Your task to perform on an android device: check storage Image 0: 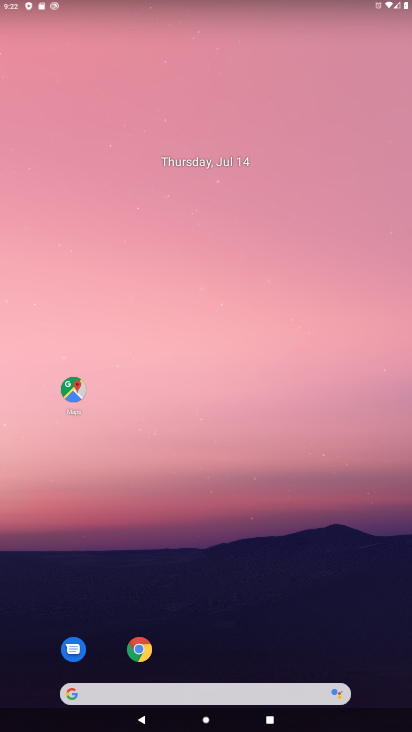
Step 0: drag from (113, 514) to (411, 249)
Your task to perform on an android device: check storage Image 1: 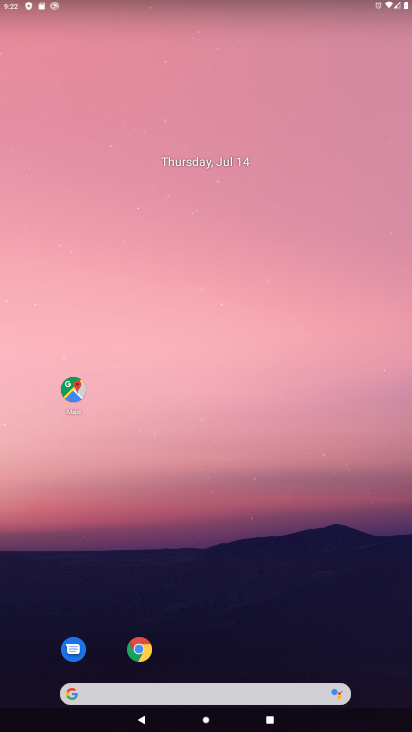
Step 1: drag from (236, 726) to (401, 20)
Your task to perform on an android device: check storage Image 2: 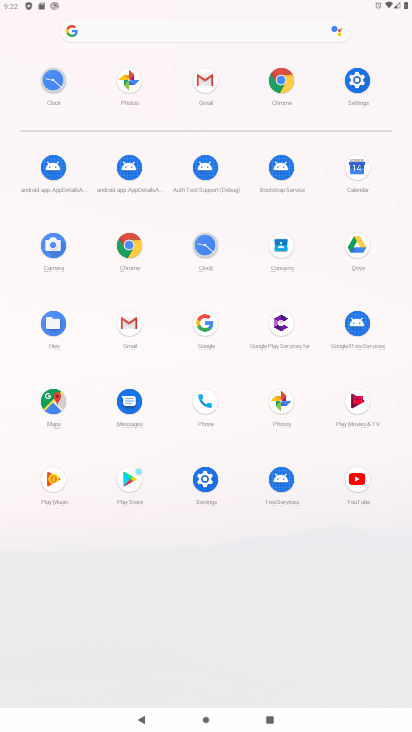
Step 2: click (360, 79)
Your task to perform on an android device: check storage Image 3: 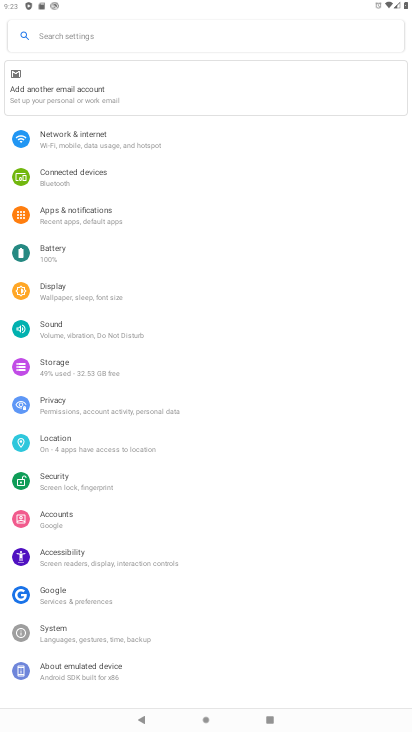
Step 3: click (123, 361)
Your task to perform on an android device: check storage Image 4: 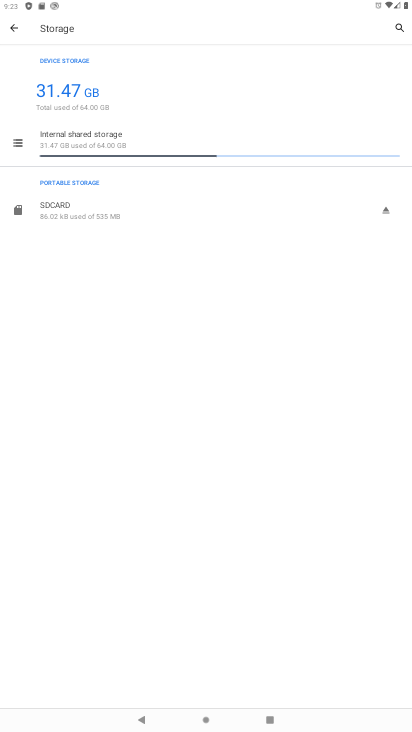
Step 4: task complete